Your task to perform on an android device: delete browsing data in the chrome app Image 0: 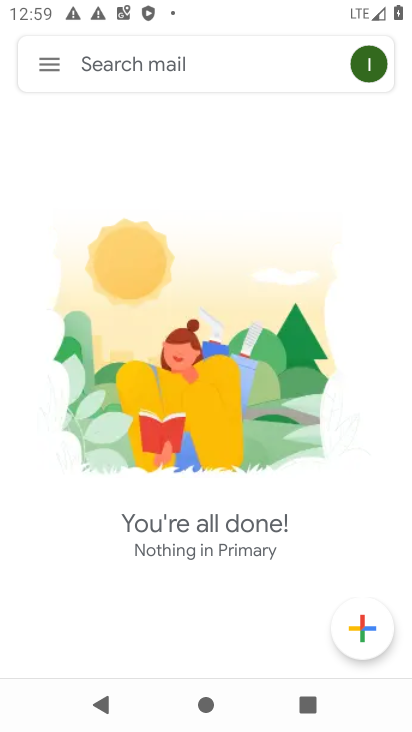
Step 0: press home button
Your task to perform on an android device: delete browsing data in the chrome app Image 1: 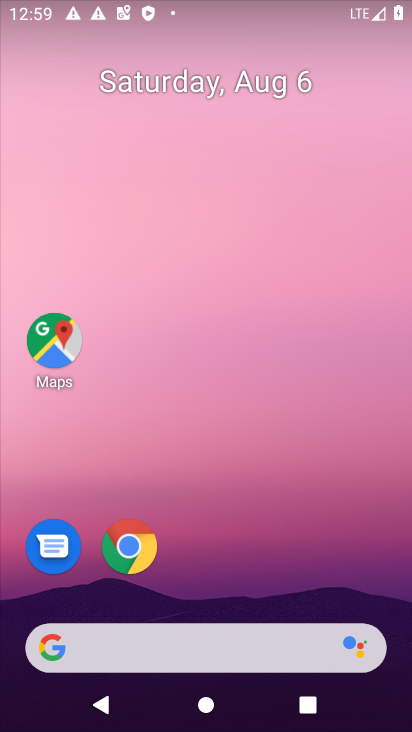
Step 1: click (127, 545)
Your task to perform on an android device: delete browsing data in the chrome app Image 2: 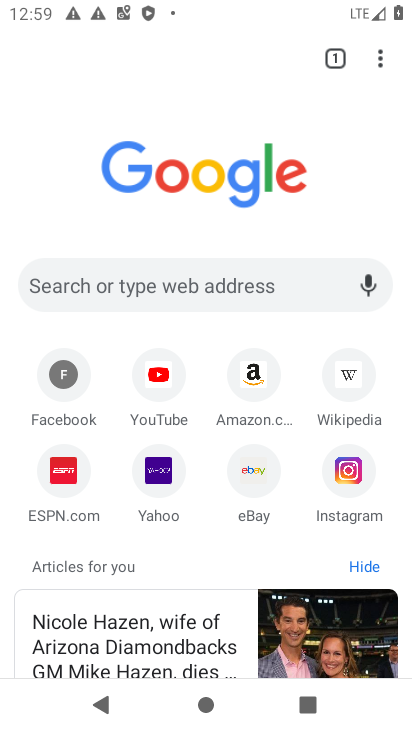
Step 2: click (376, 62)
Your task to perform on an android device: delete browsing data in the chrome app Image 3: 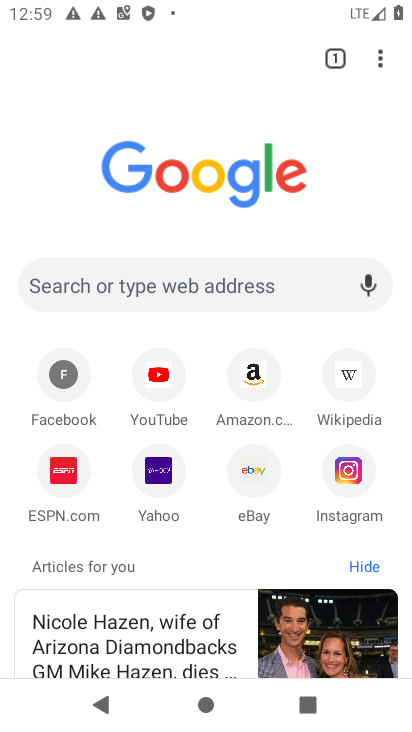
Step 3: click (375, 67)
Your task to perform on an android device: delete browsing data in the chrome app Image 4: 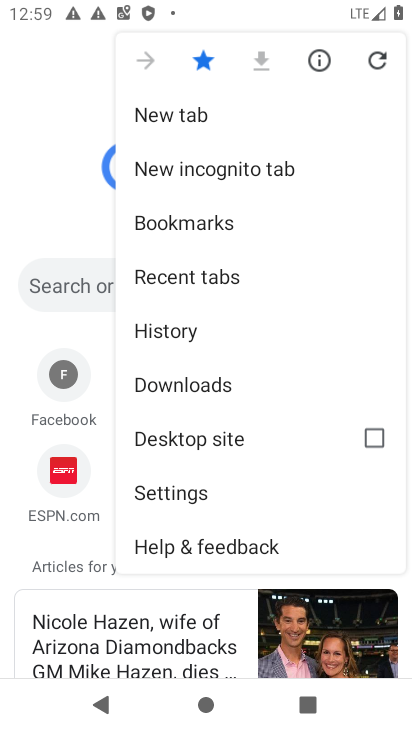
Step 4: click (168, 330)
Your task to perform on an android device: delete browsing data in the chrome app Image 5: 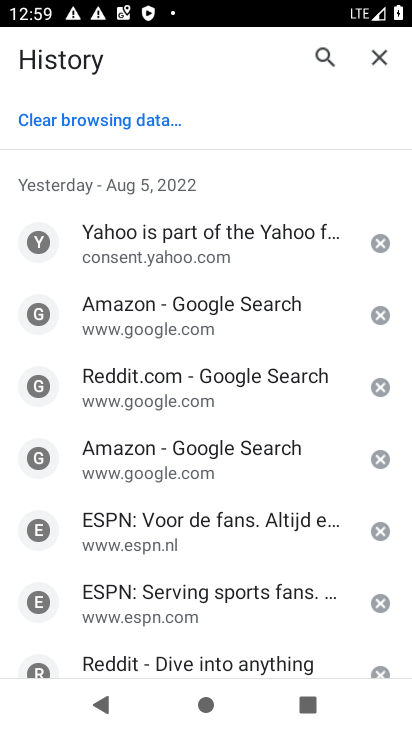
Step 5: click (101, 122)
Your task to perform on an android device: delete browsing data in the chrome app Image 6: 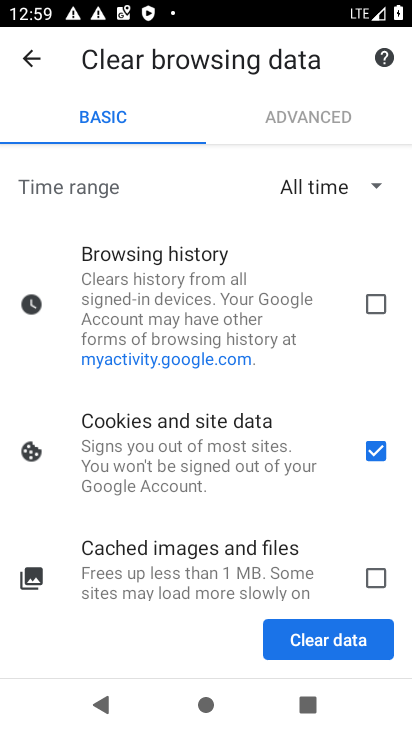
Step 6: click (374, 302)
Your task to perform on an android device: delete browsing data in the chrome app Image 7: 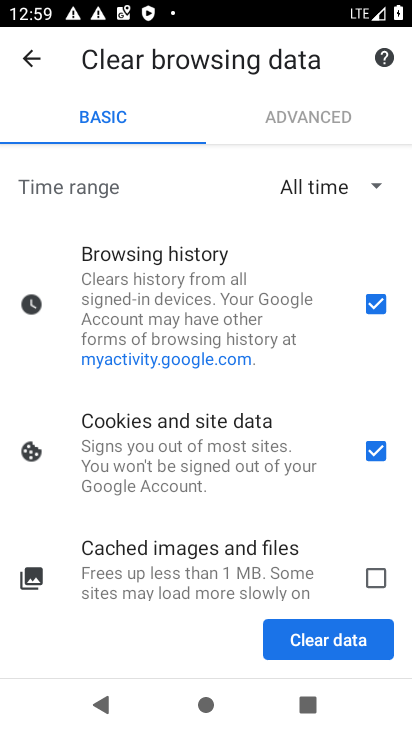
Step 7: click (372, 449)
Your task to perform on an android device: delete browsing data in the chrome app Image 8: 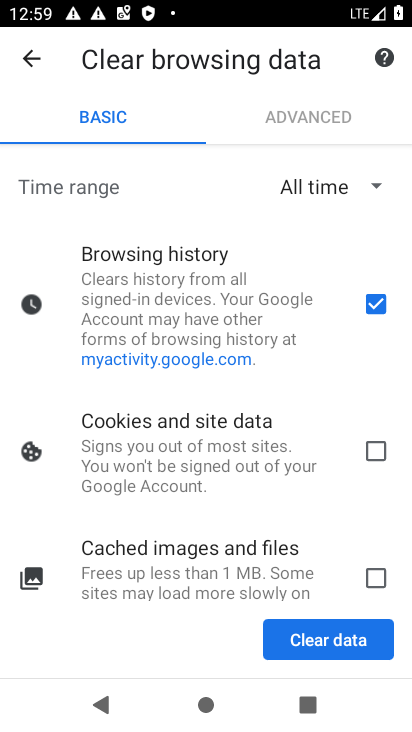
Step 8: click (333, 642)
Your task to perform on an android device: delete browsing data in the chrome app Image 9: 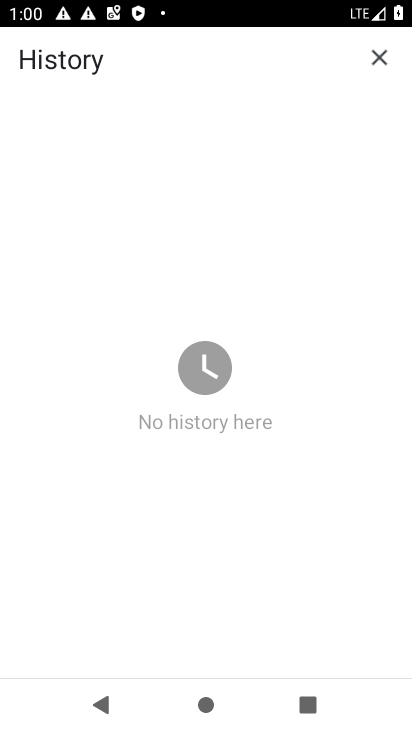
Step 9: task complete